Your task to perform on an android device: Search for "razer blade" on costco, select the first entry, add it to the cart, then select checkout. Image 0: 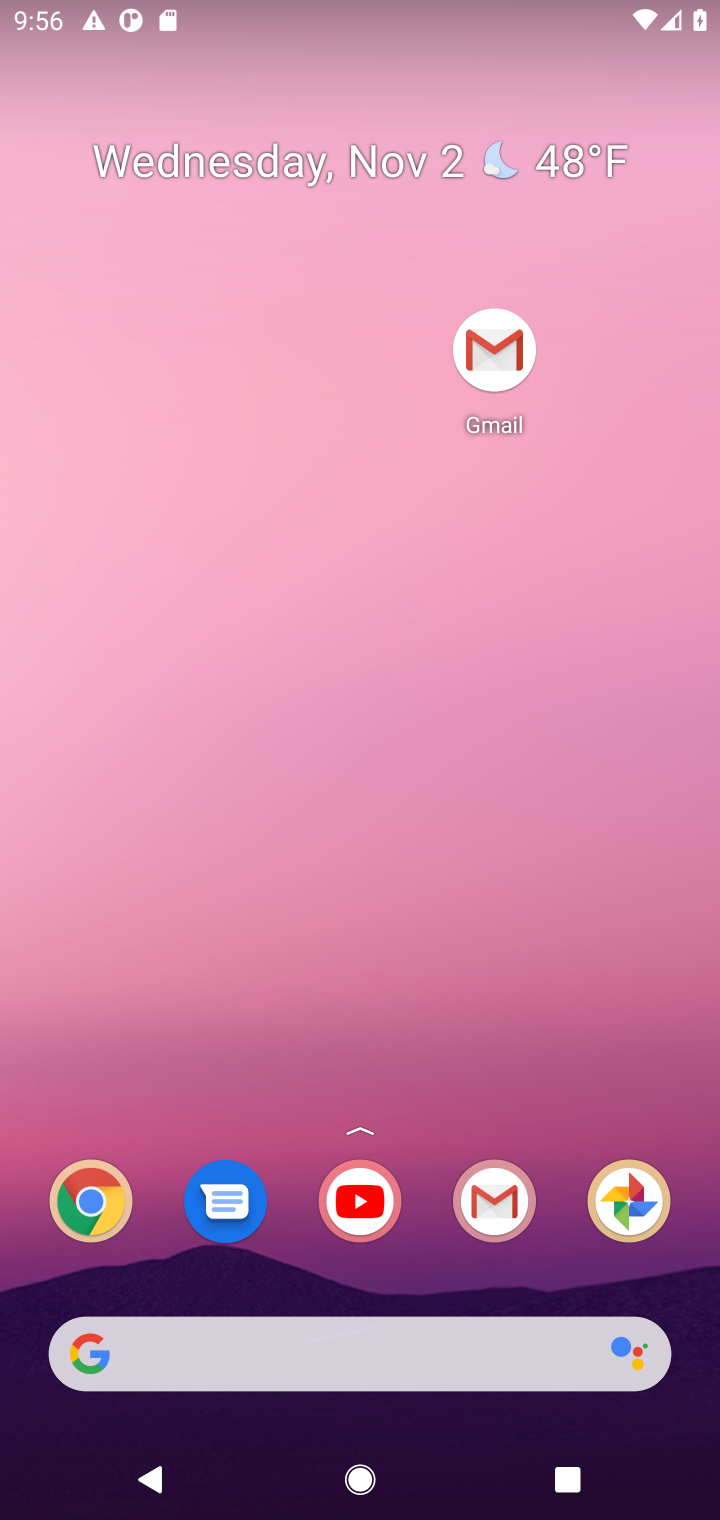
Step 0: drag from (427, 1234) to (316, 258)
Your task to perform on an android device: Search for "razer blade" on costco, select the first entry, add it to the cart, then select checkout. Image 1: 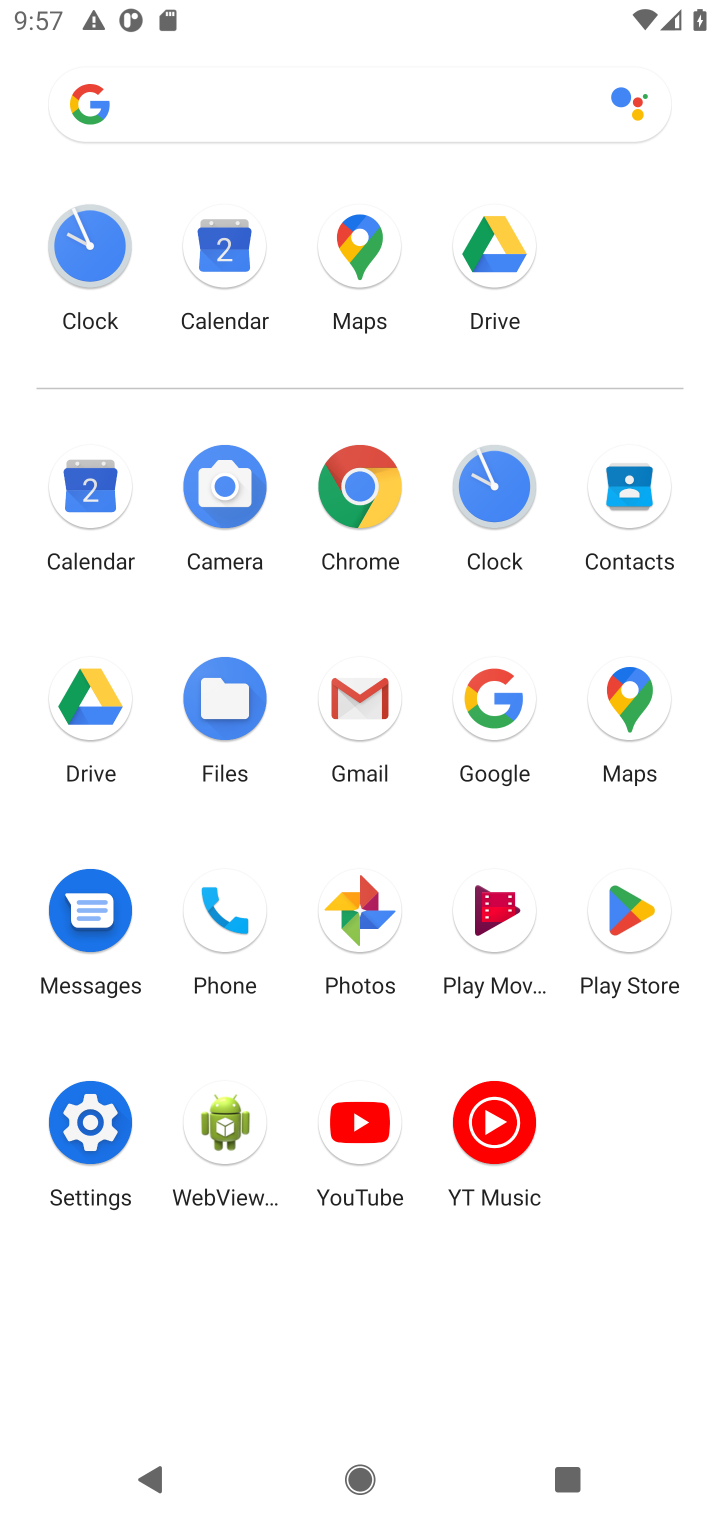
Step 1: click (355, 486)
Your task to perform on an android device: Search for "razer blade" on costco, select the first entry, add it to the cart, then select checkout. Image 2: 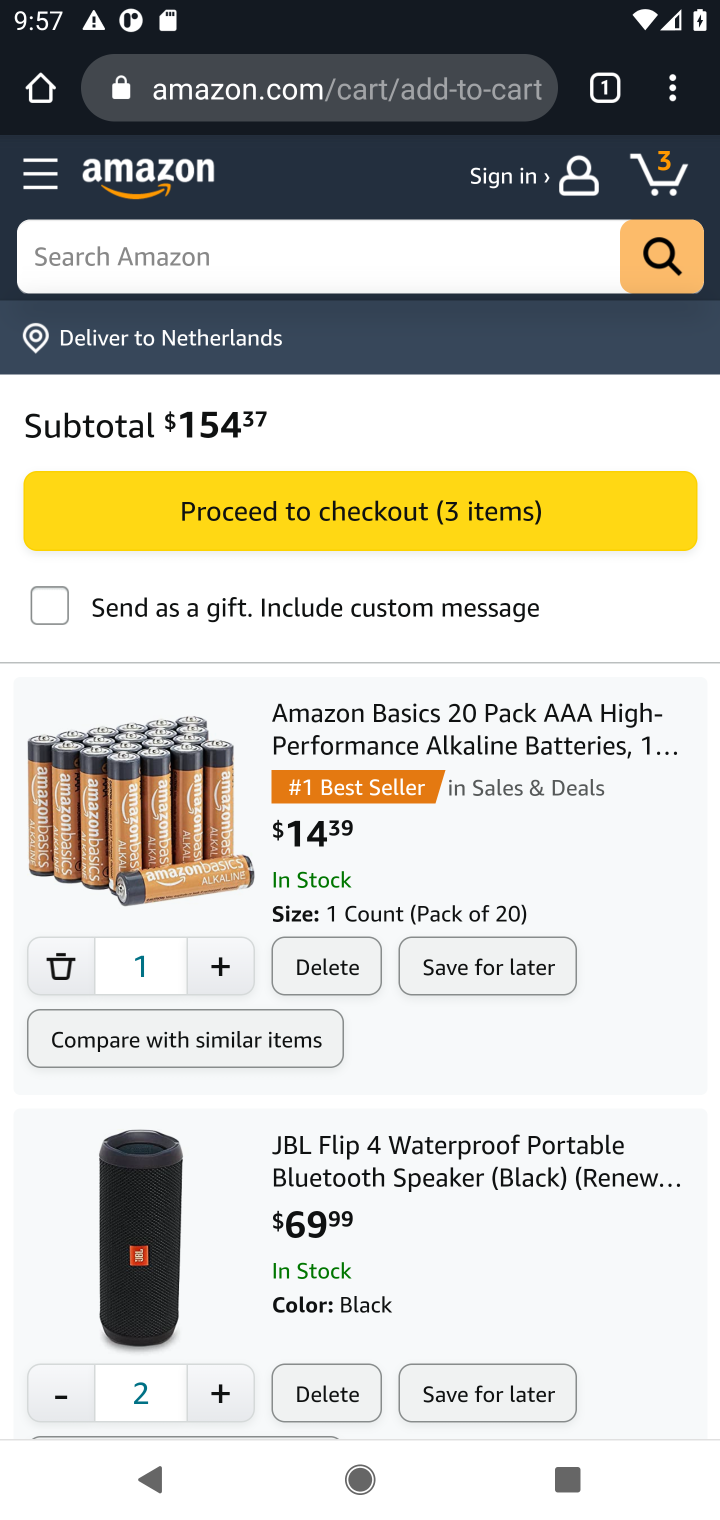
Step 2: click (373, 99)
Your task to perform on an android device: Search for "razer blade" on costco, select the first entry, add it to the cart, then select checkout. Image 3: 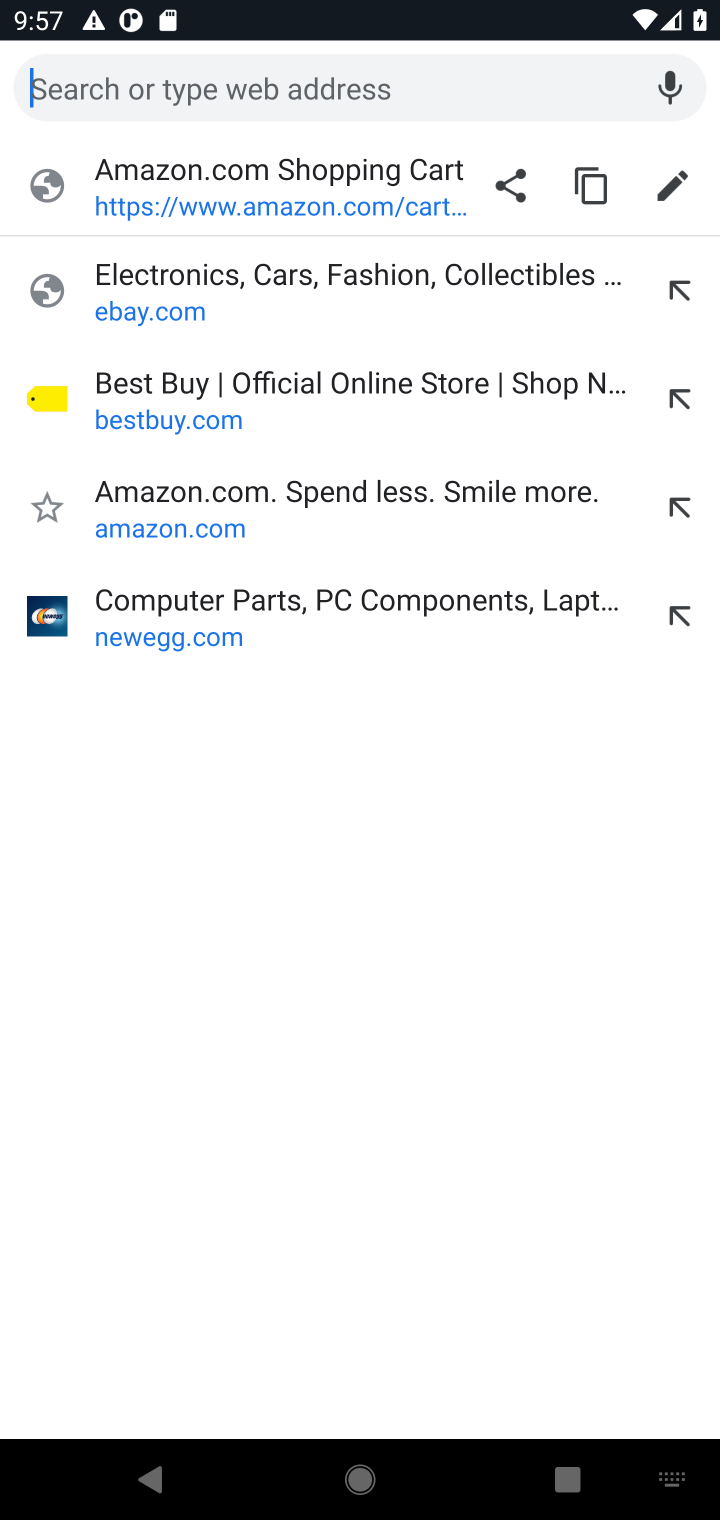
Step 3: type "costco.com"
Your task to perform on an android device: Search for "razer blade" on costco, select the first entry, add it to the cart, then select checkout. Image 4: 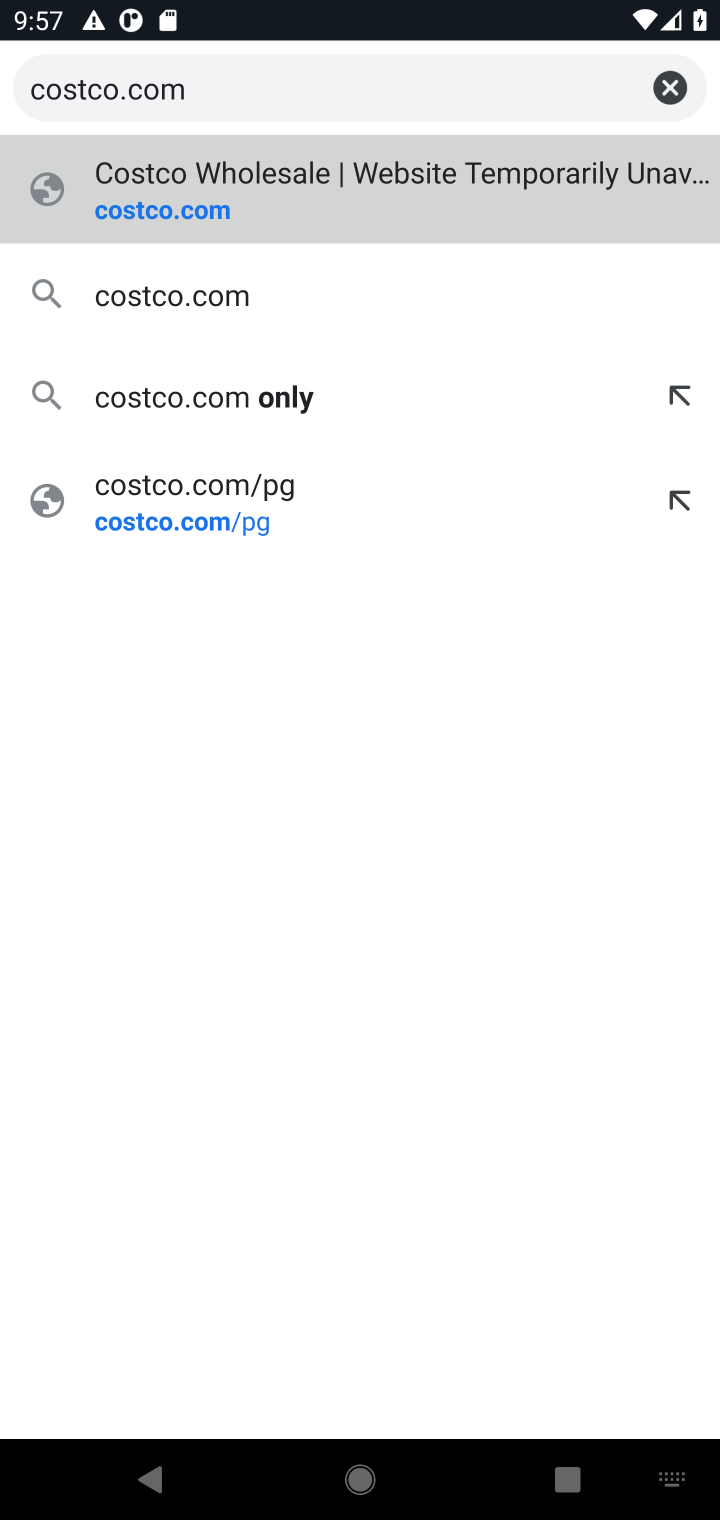
Step 4: press enter
Your task to perform on an android device: Search for "razer blade" on costco, select the first entry, add it to the cart, then select checkout. Image 5: 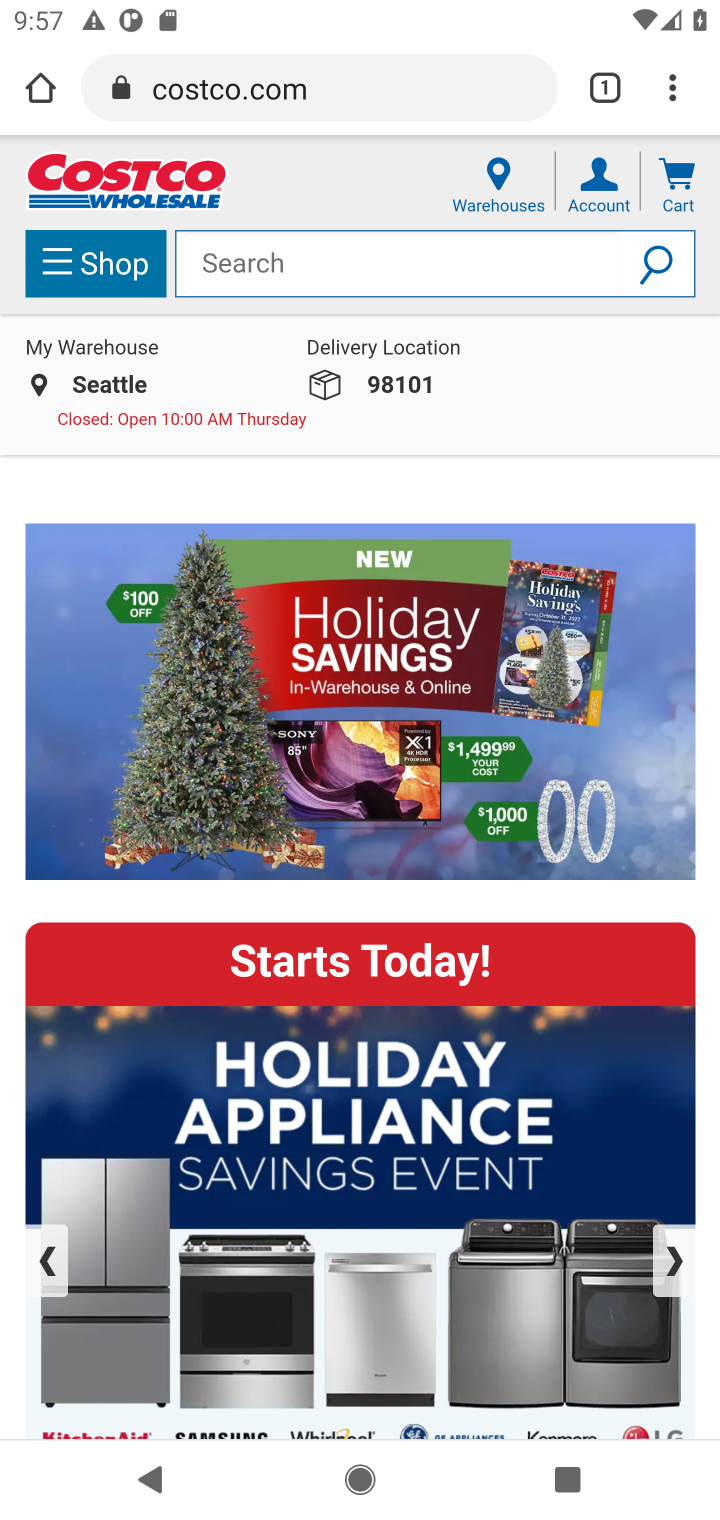
Step 5: click (503, 264)
Your task to perform on an android device: Search for "razer blade" on costco, select the first entry, add it to the cart, then select checkout. Image 6: 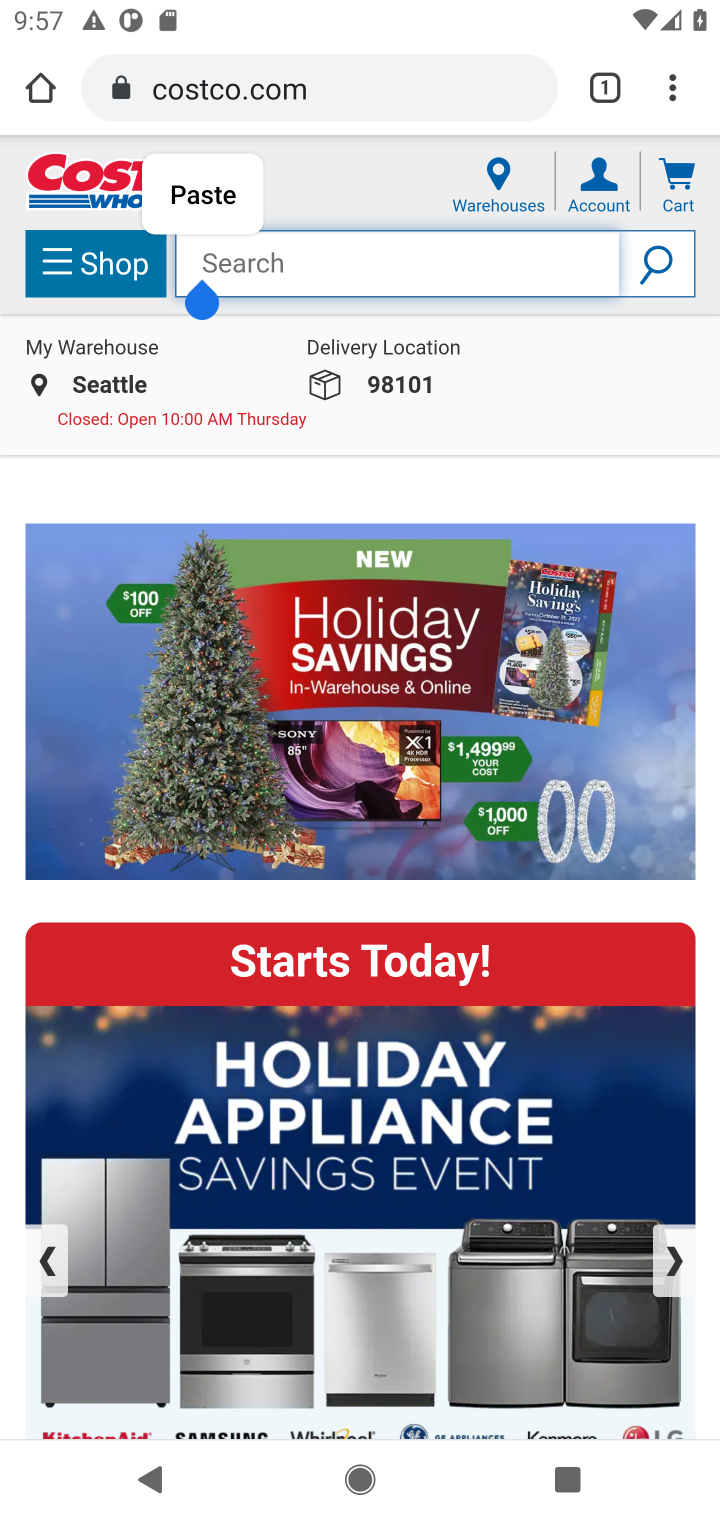
Step 6: type "razer blade"
Your task to perform on an android device: Search for "razer blade" on costco, select the first entry, add it to the cart, then select checkout. Image 7: 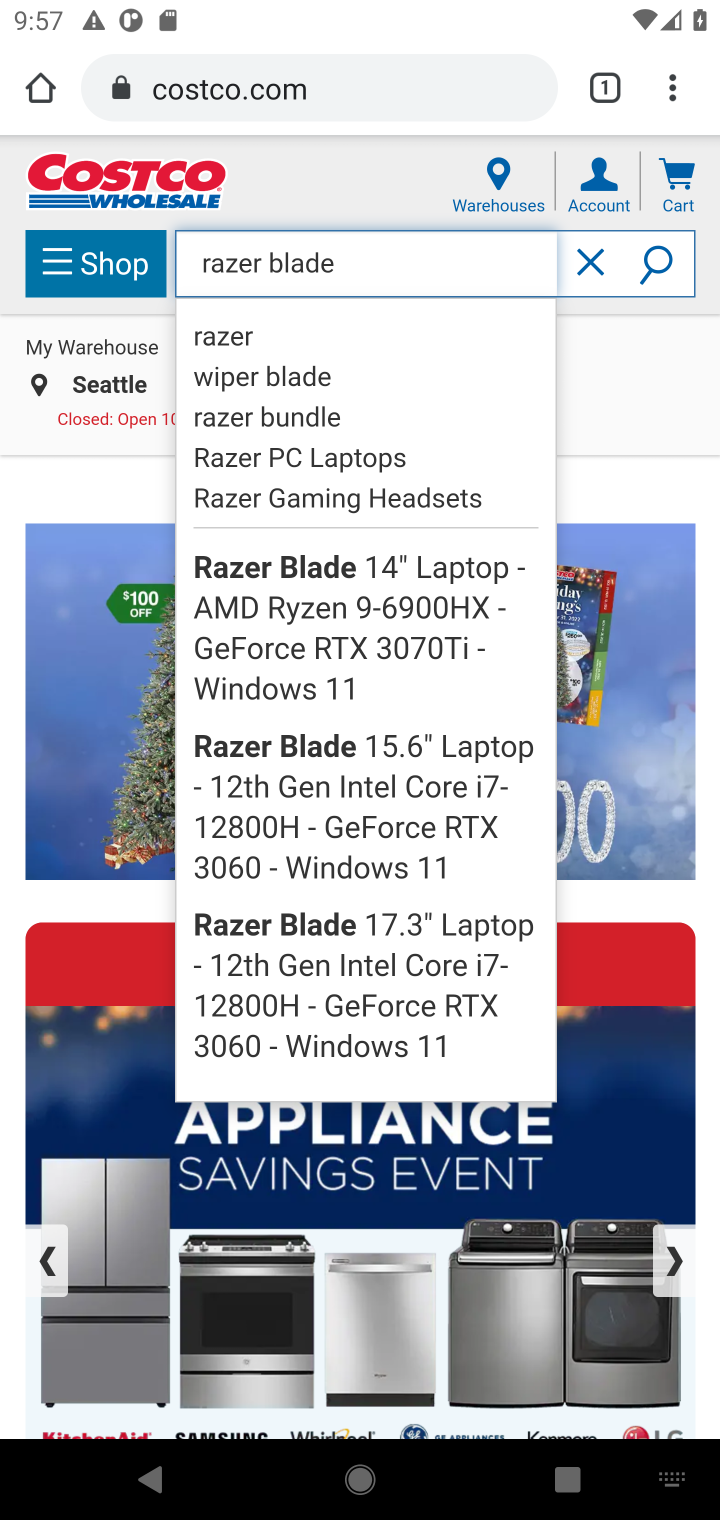
Step 7: press enter
Your task to perform on an android device: Search for "razer blade" on costco, select the first entry, add it to the cart, then select checkout. Image 8: 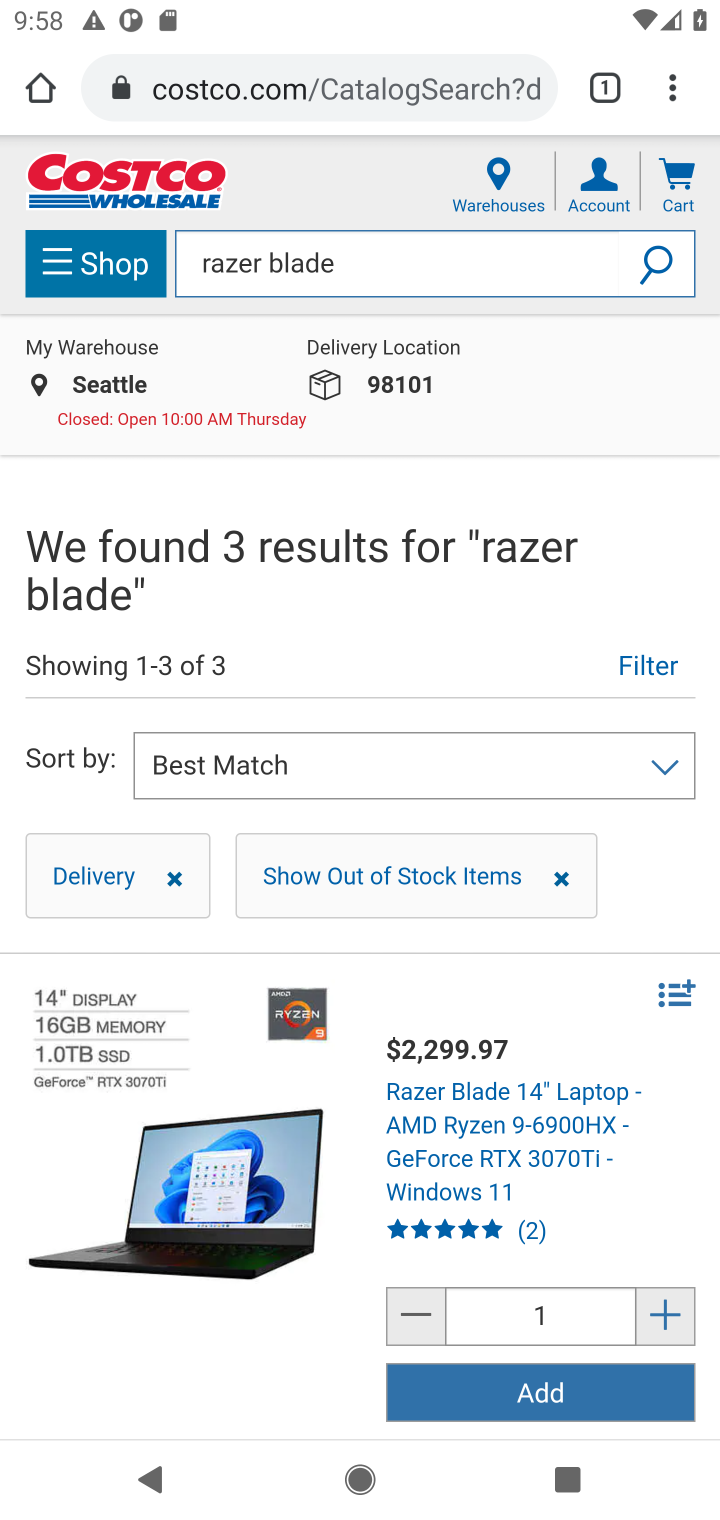
Step 8: drag from (391, 1261) to (355, 778)
Your task to perform on an android device: Search for "razer blade" on costco, select the first entry, add it to the cart, then select checkout. Image 9: 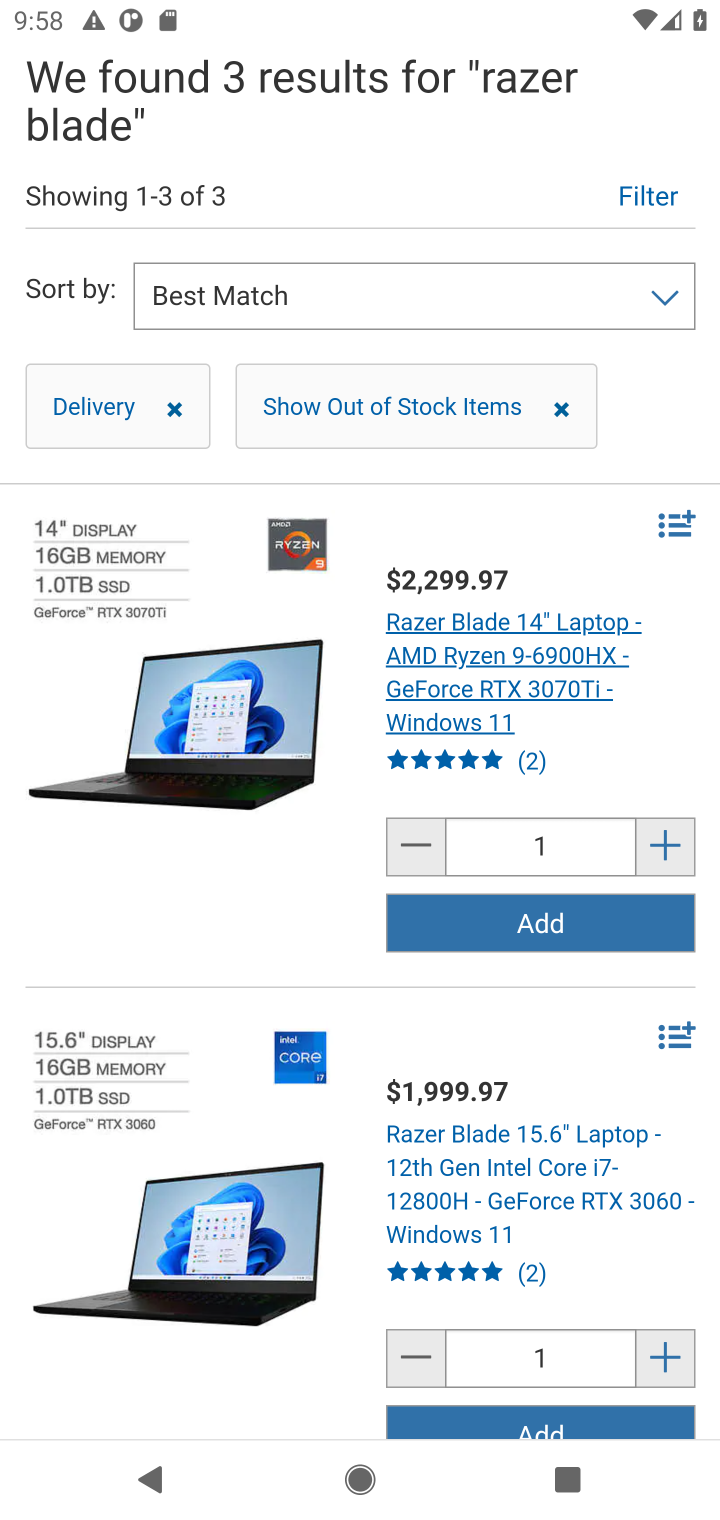
Step 9: click (519, 937)
Your task to perform on an android device: Search for "razer blade" on costco, select the first entry, add it to the cart, then select checkout. Image 10: 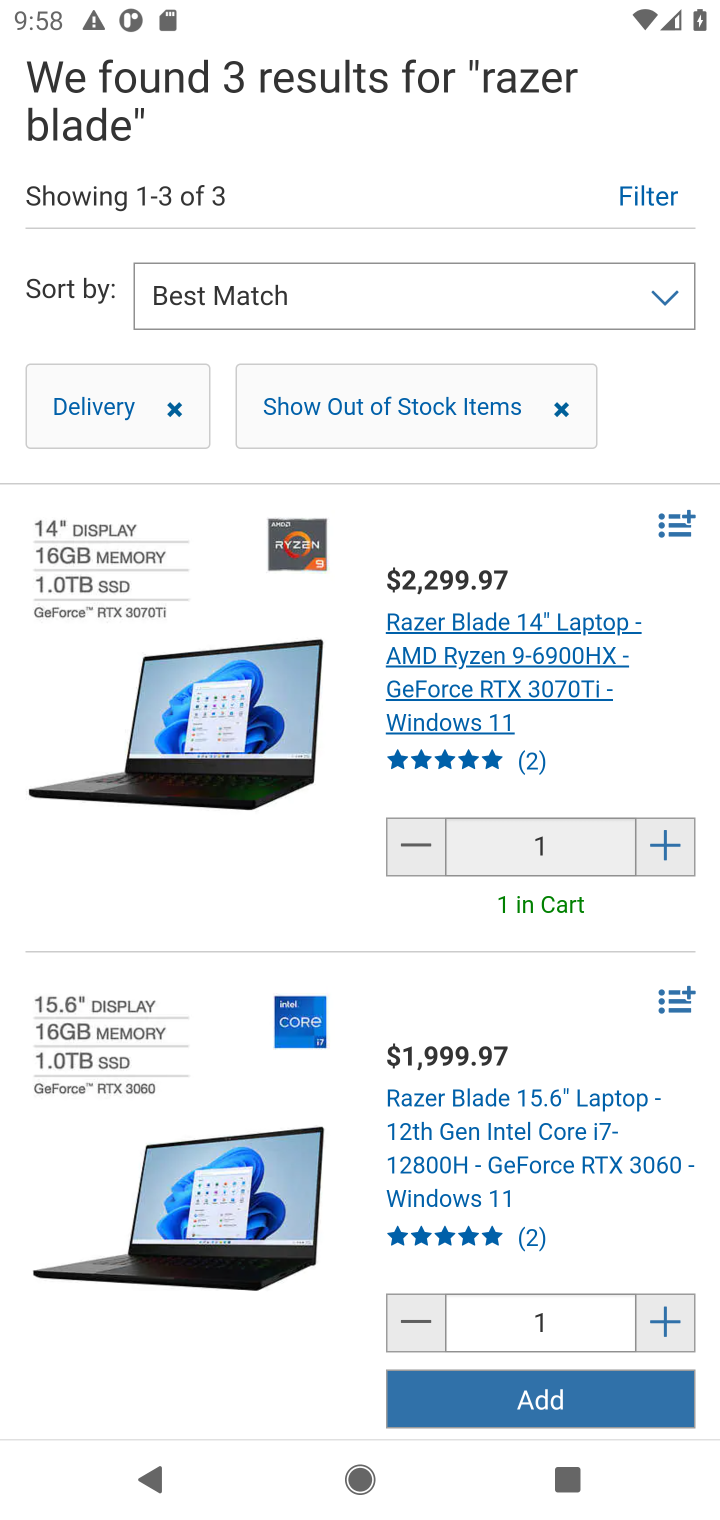
Step 10: drag from (231, 676) to (319, 1177)
Your task to perform on an android device: Search for "razer blade" on costco, select the first entry, add it to the cart, then select checkout. Image 11: 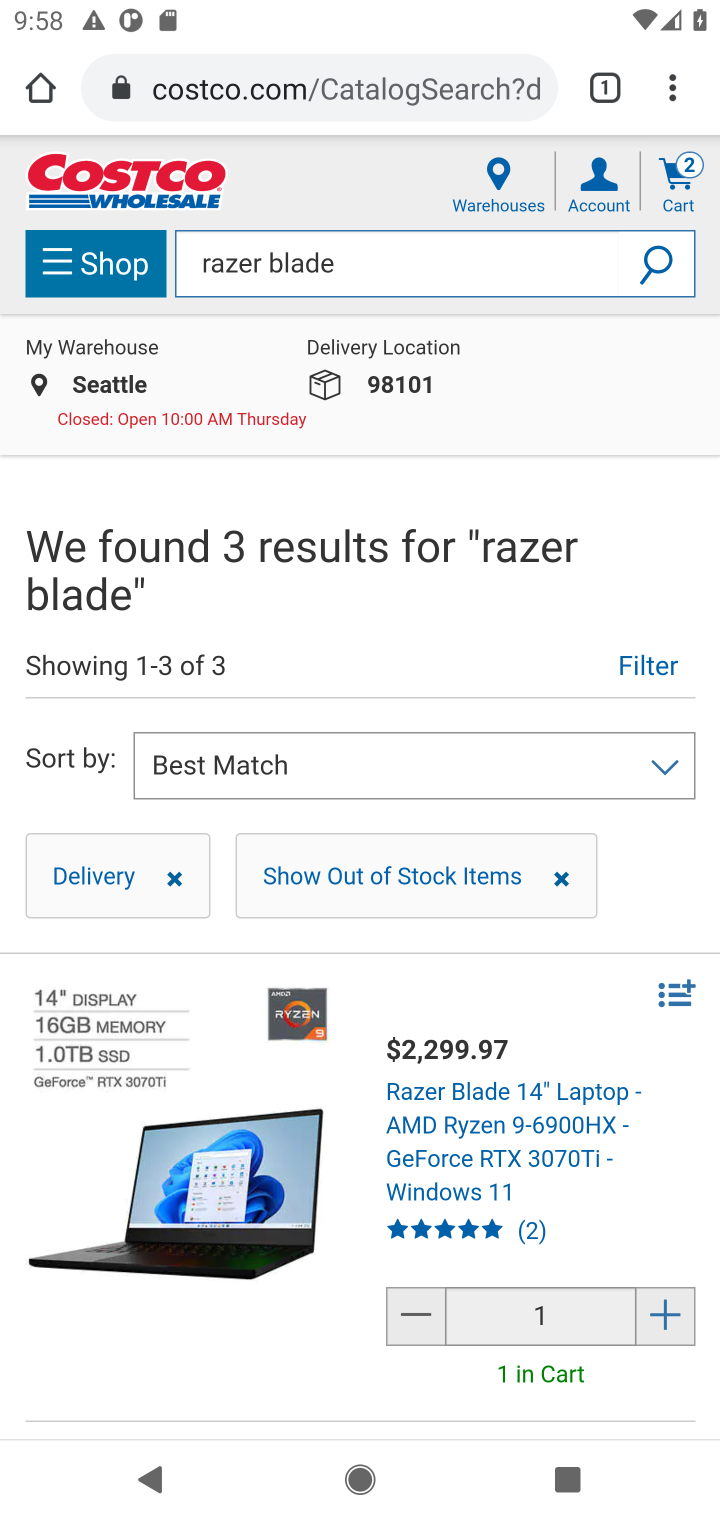
Step 11: click (676, 175)
Your task to perform on an android device: Search for "razer blade" on costco, select the first entry, add it to the cart, then select checkout. Image 12: 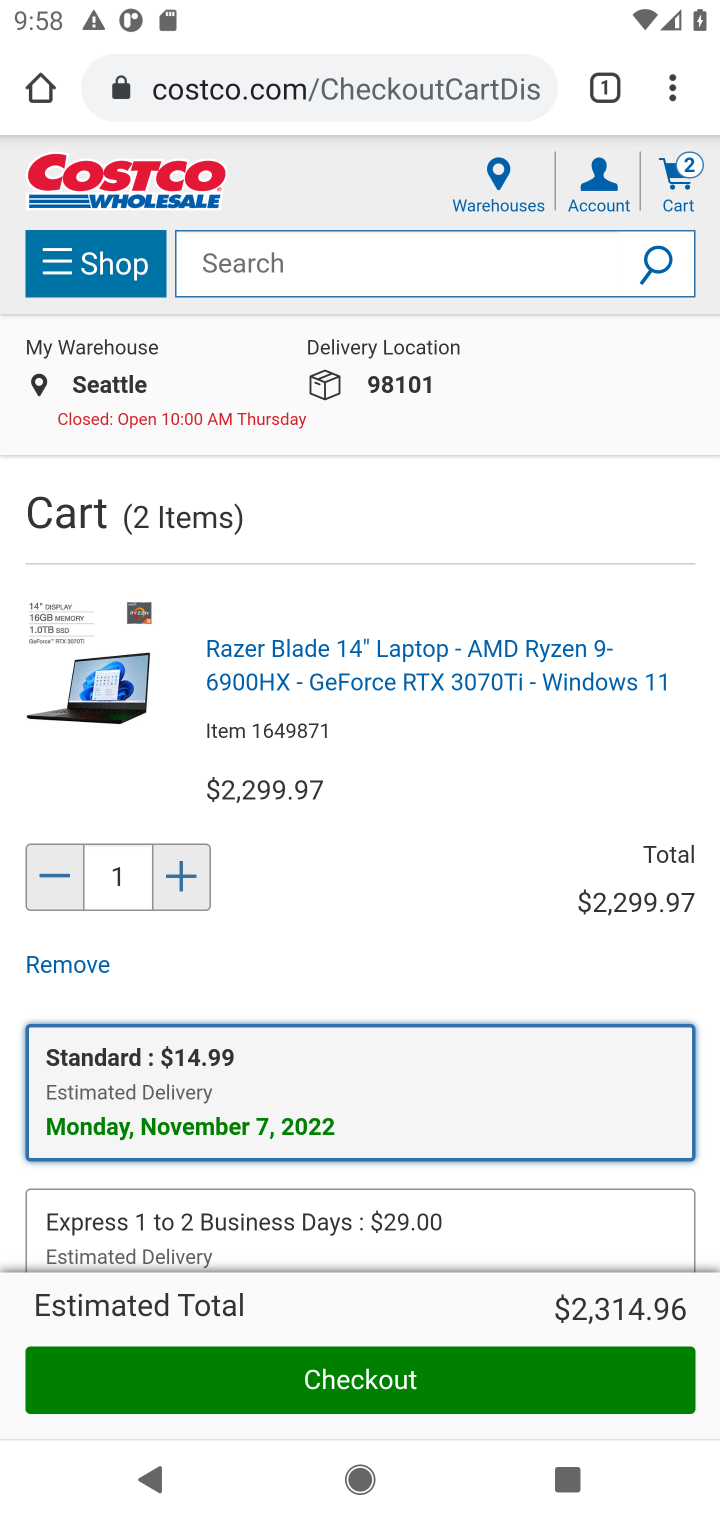
Step 12: click (408, 1383)
Your task to perform on an android device: Search for "razer blade" on costco, select the first entry, add it to the cart, then select checkout. Image 13: 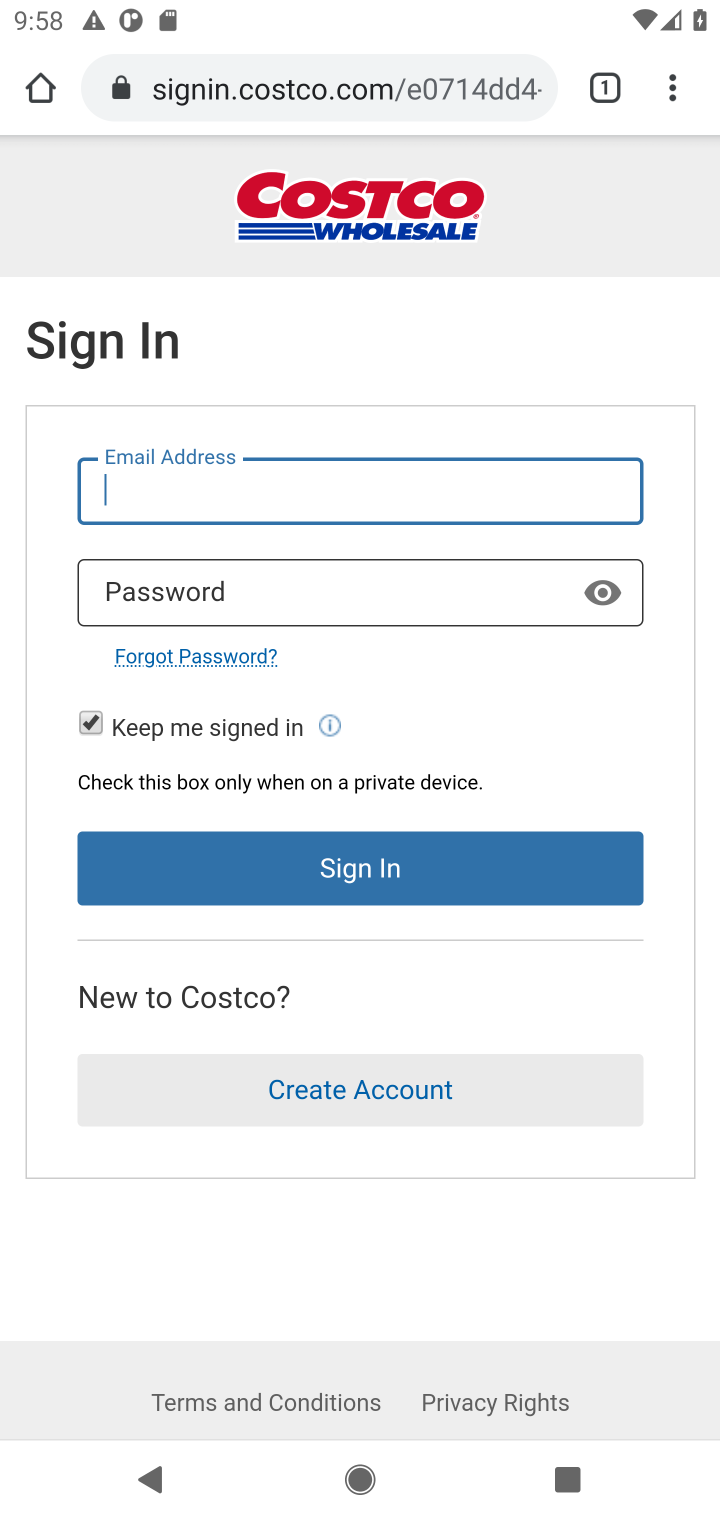
Step 13: task complete